Your task to perform on an android device: open app "The Home Depot" (install if not already installed) Image 0: 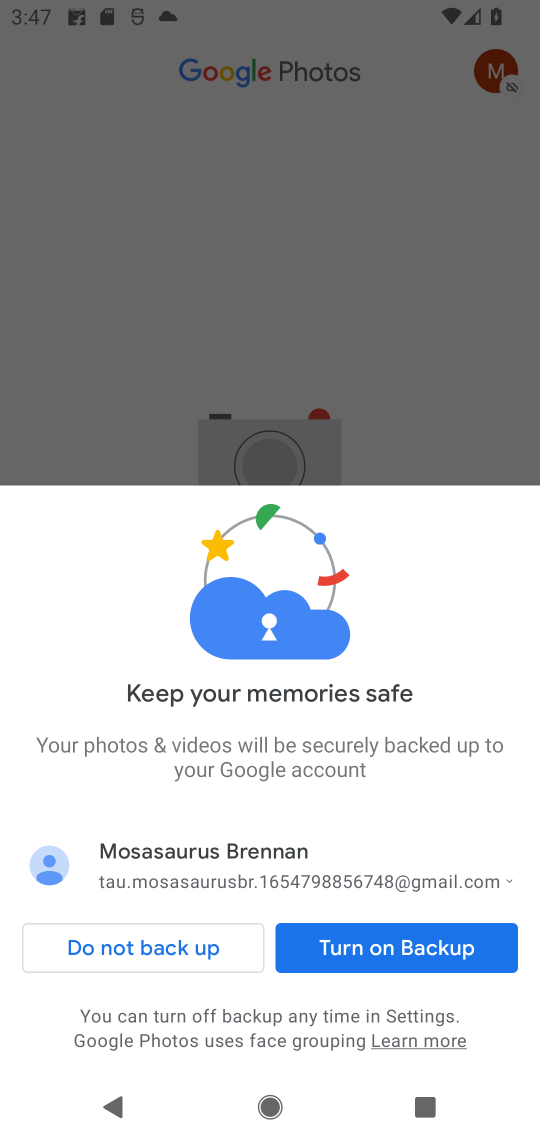
Step 0: press home button
Your task to perform on an android device: open app "The Home Depot" (install if not already installed) Image 1: 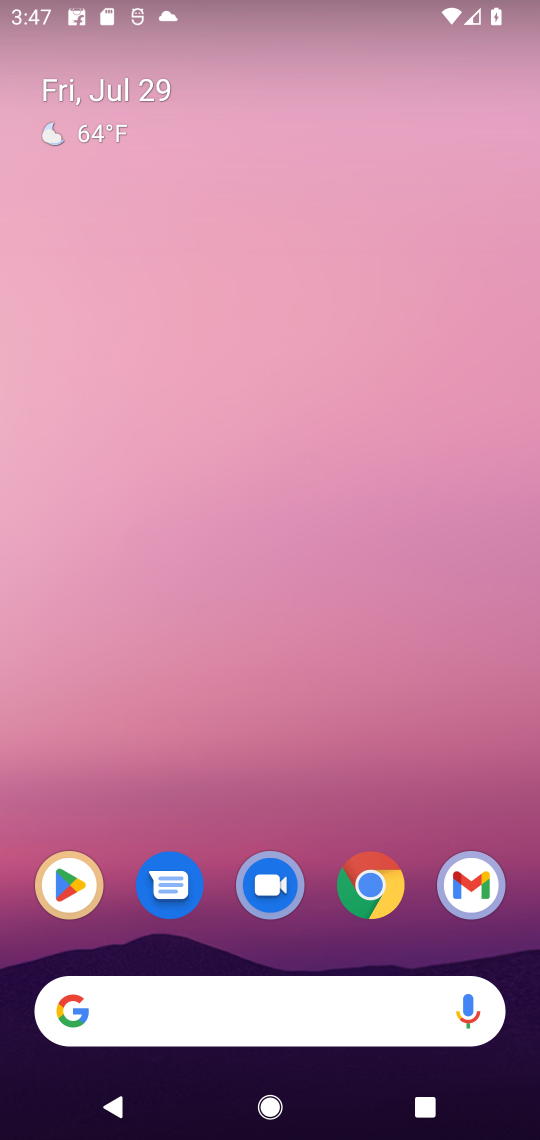
Step 1: click (72, 897)
Your task to perform on an android device: open app "The Home Depot" (install if not already installed) Image 2: 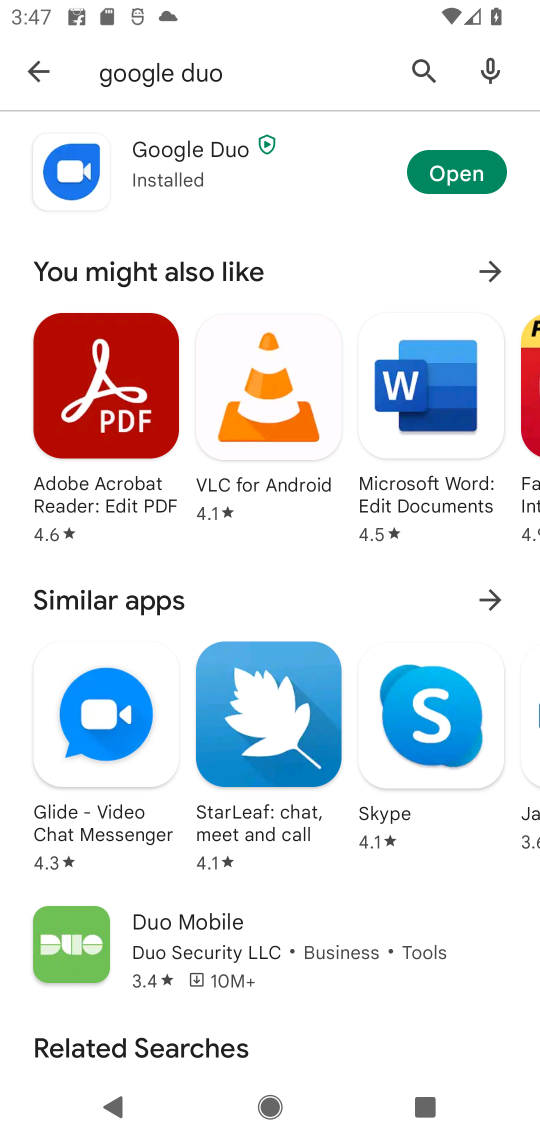
Step 2: click (412, 62)
Your task to perform on an android device: open app "The Home Depot" (install if not already installed) Image 3: 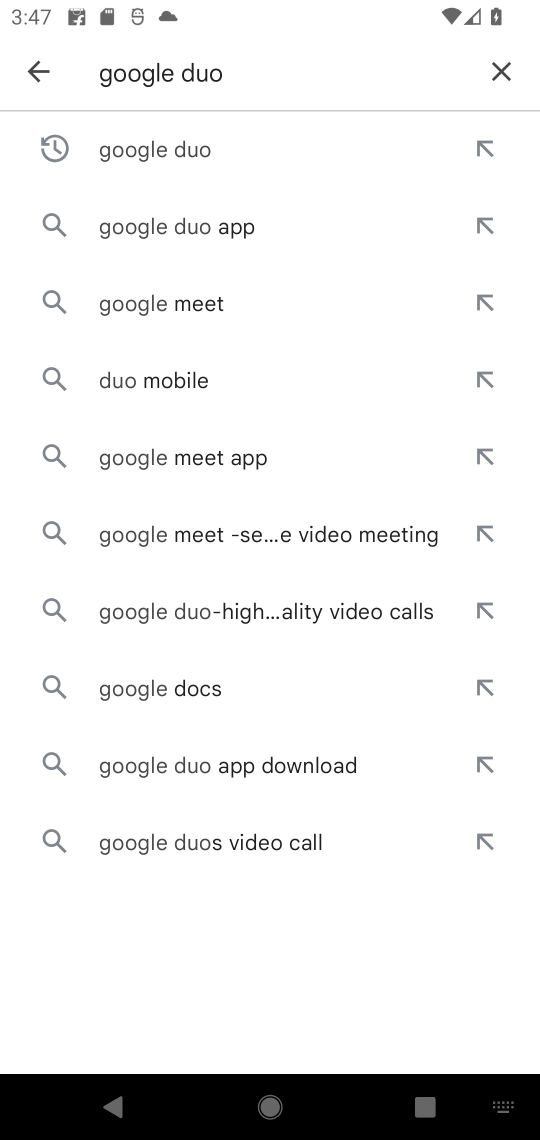
Step 3: click (510, 72)
Your task to perform on an android device: open app "The Home Depot" (install if not already installed) Image 4: 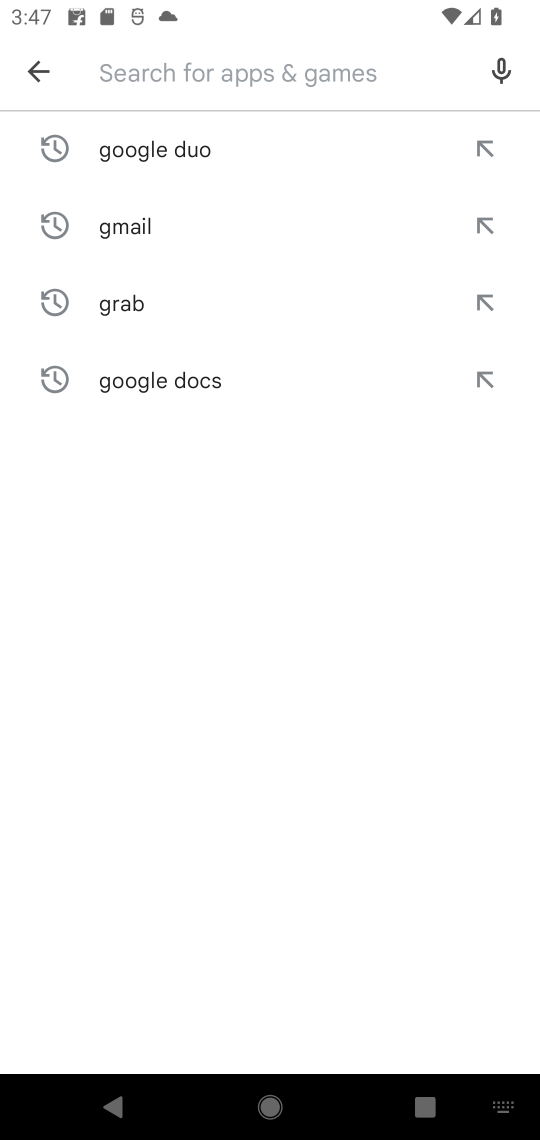
Step 4: click (423, 68)
Your task to perform on an android device: open app "The Home Depot" (install if not already installed) Image 5: 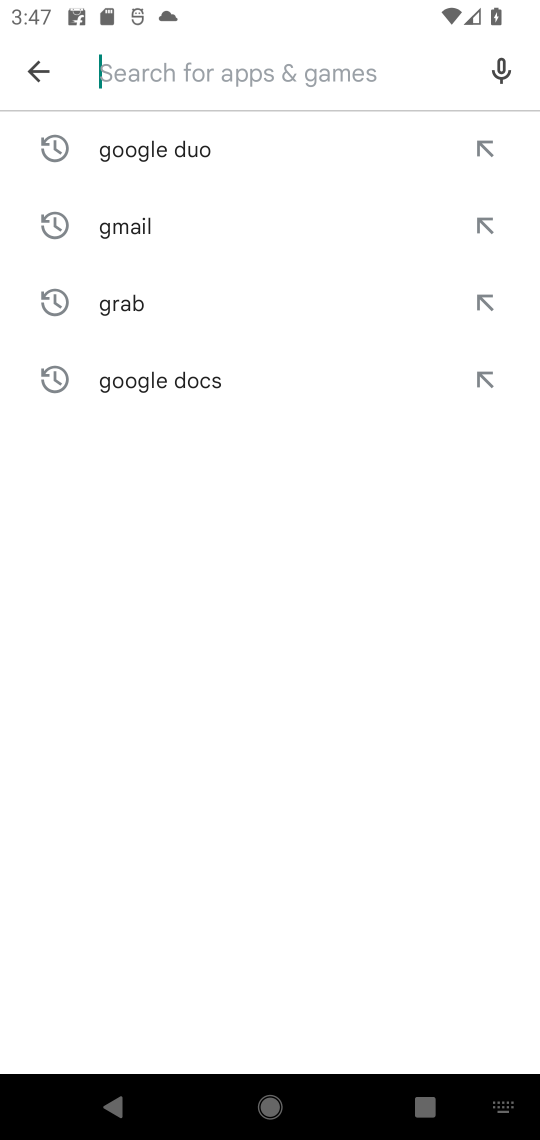
Step 5: type "The Home Depot"
Your task to perform on an android device: open app "The Home Depot" (install if not already installed) Image 6: 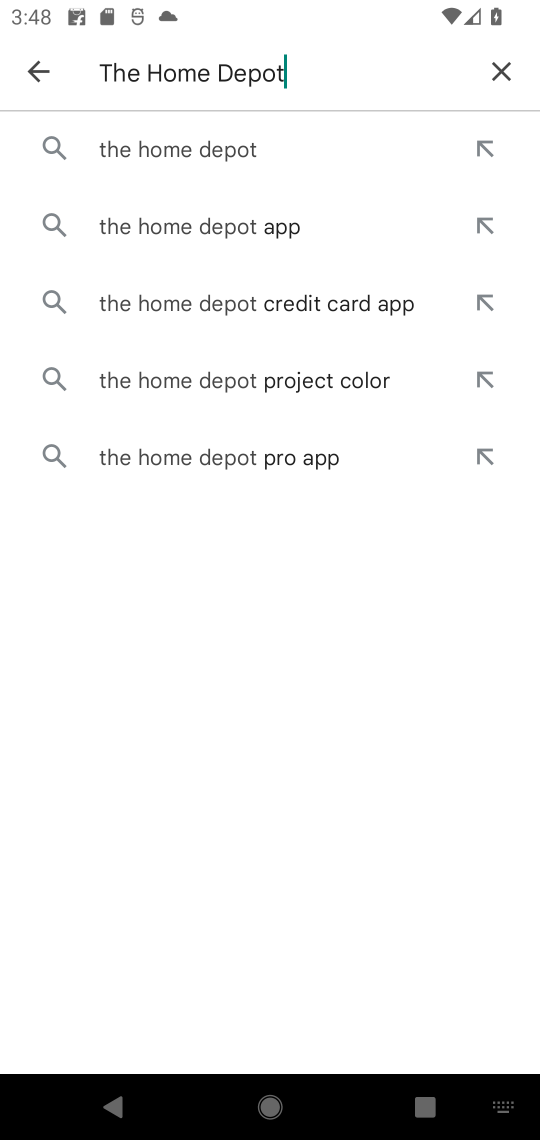
Step 6: click (172, 150)
Your task to perform on an android device: open app "The Home Depot" (install if not already installed) Image 7: 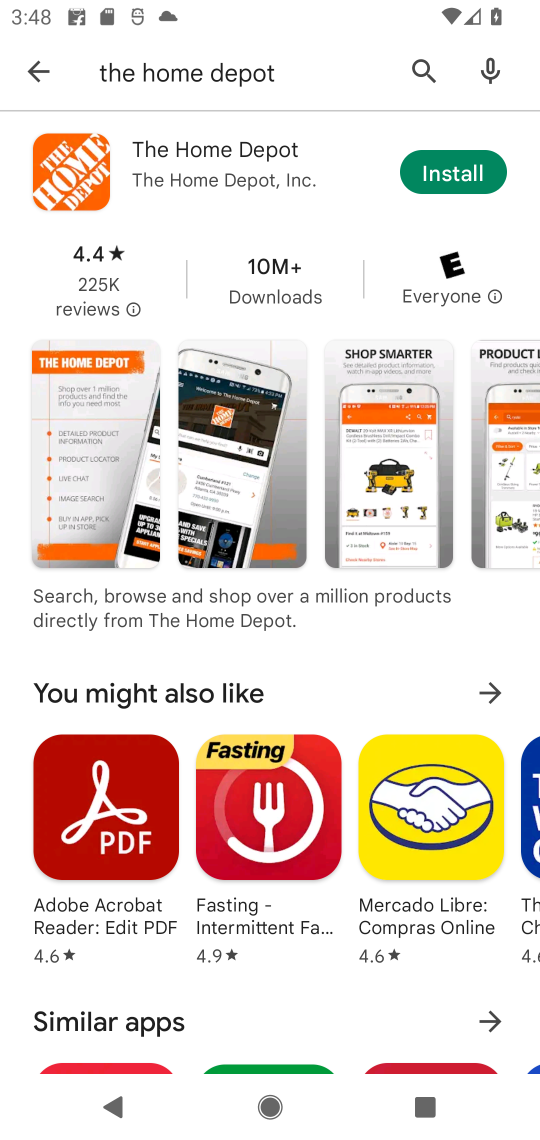
Step 7: click (466, 166)
Your task to perform on an android device: open app "The Home Depot" (install if not already installed) Image 8: 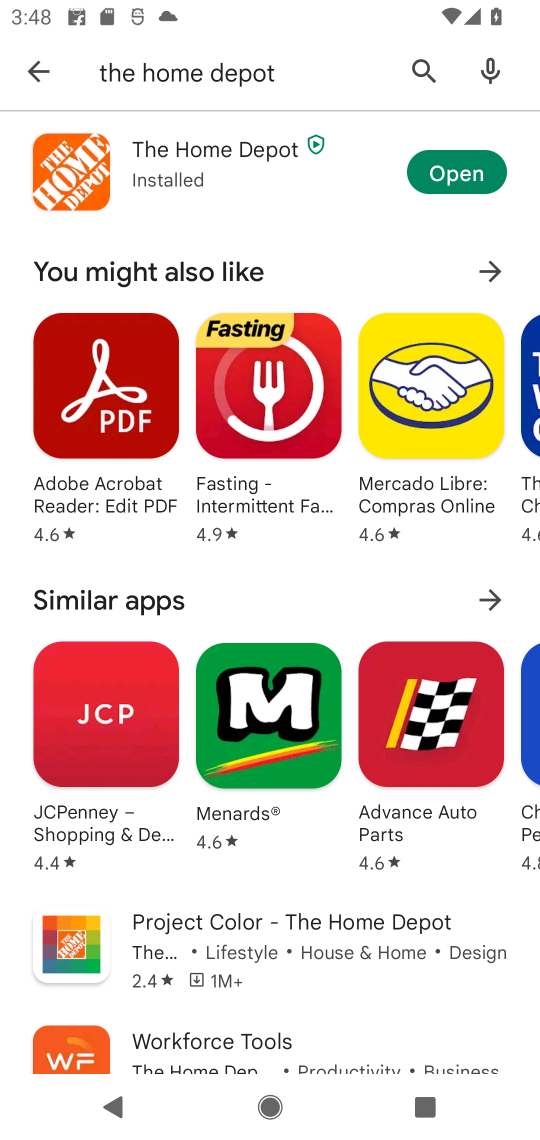
Step 8: click (452, 171)
Your task to perform on an android device: open app "The Home Depot" (install if not already installed) Image 9: 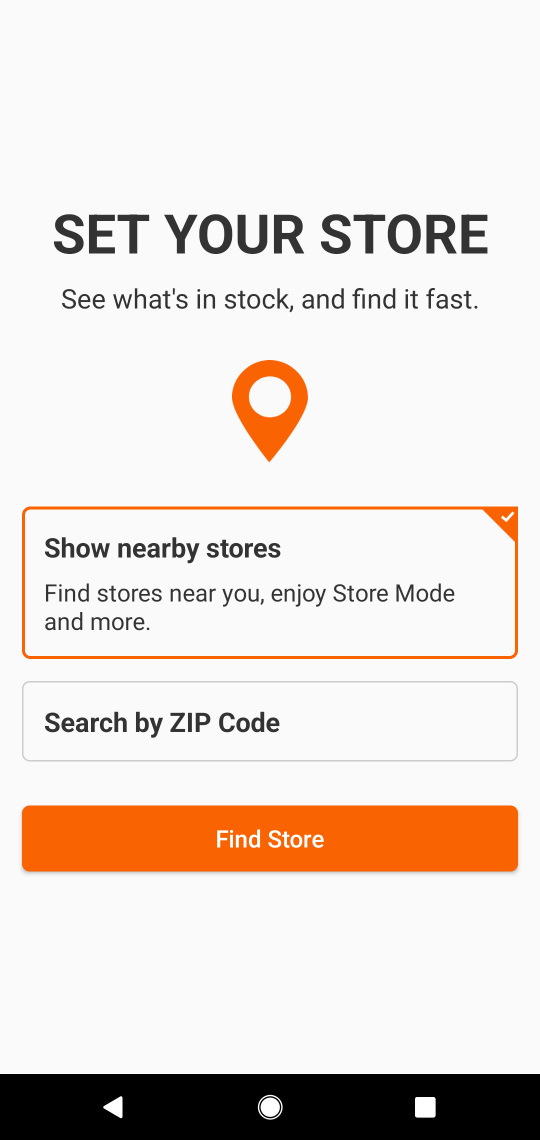
Step 9: task complete